Your task to perform on an android device: Go to CNN.com Image 0: 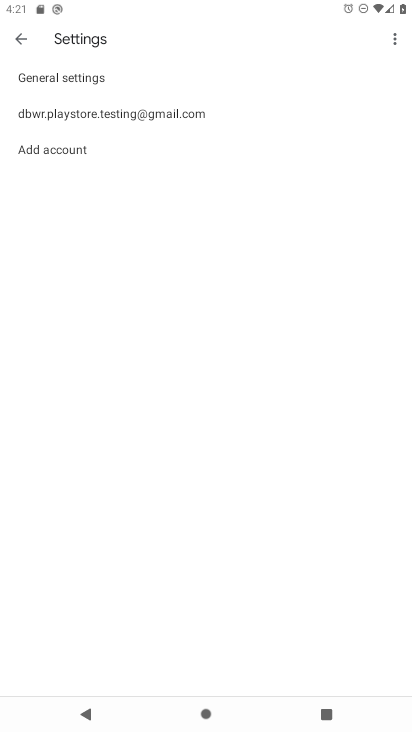
Step 0: press home button
Your task to perform on an android device: Go to CNN.com Image 1: 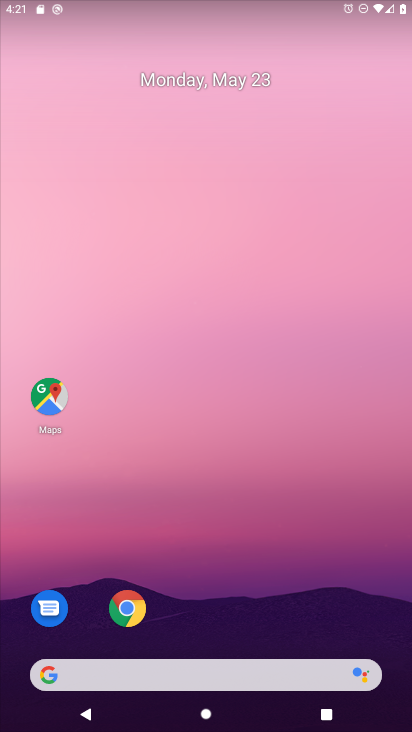
Step 1: click (129, 608)
Your task to perform on an android device: Go to CNN.com Image 2: 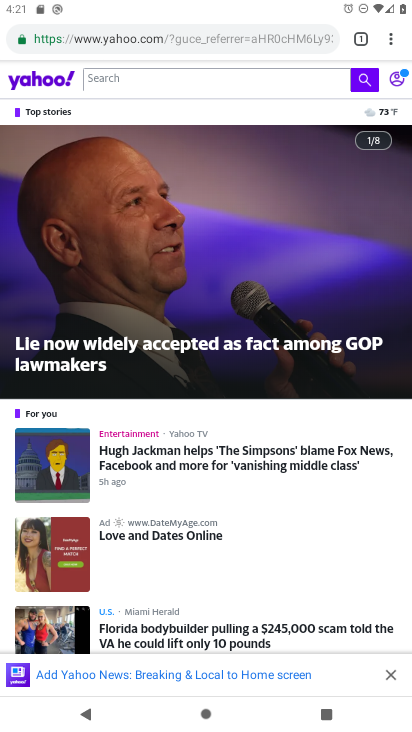
Step 2: click (243, 42)
Your task to perform on an android device: Go to CNN.com Image 3: 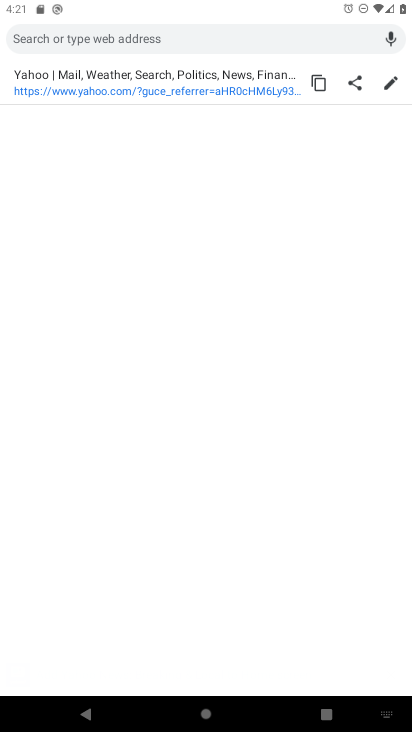
Step 3: type "CNN.com"
Your task to perform on an android device: Go to CNN.com Image 4: 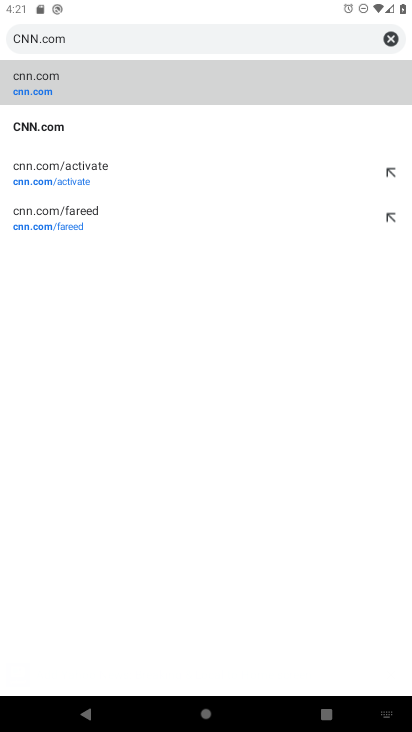
Step 4: click (30, 134)
Your task to perform on an android device: Go to CNN.com Image 5: 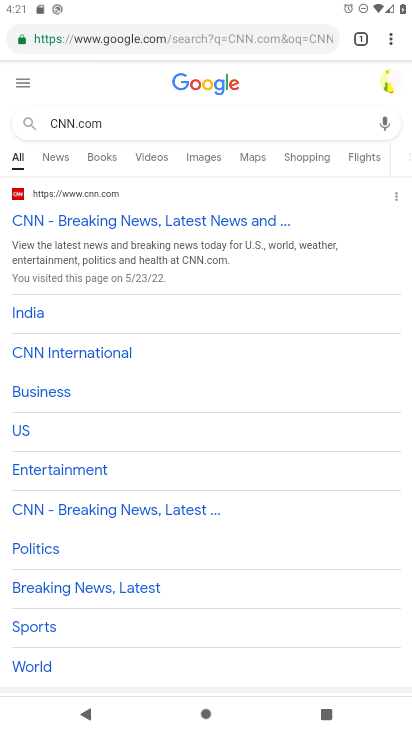
Step 5: click (65, 217)
Your task to perform on an android device: Go to CNN.com Image 6: 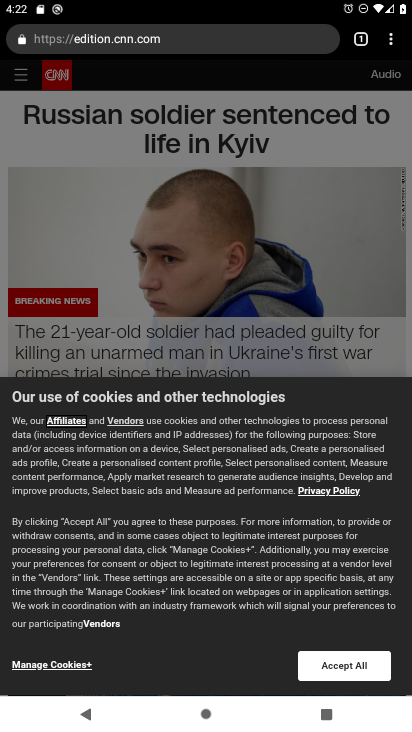
Step 6: task complete